Your task to perform on an android device: see sites visited before in the chrome app Image 0: 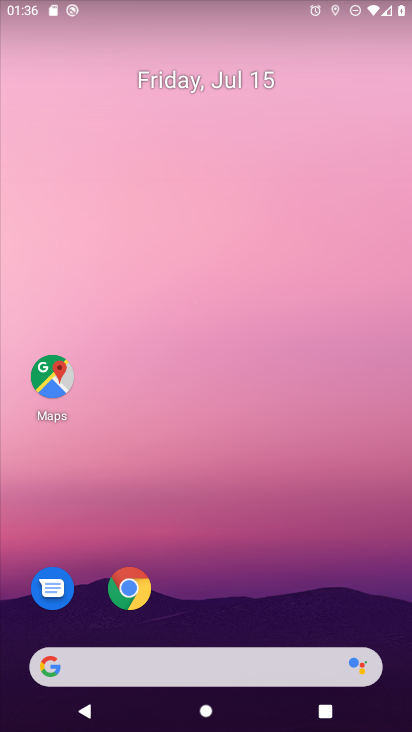
Step 0: click (124, 589)
Your task to perform on an android device: see sites visited before in the chrome app Image 1: 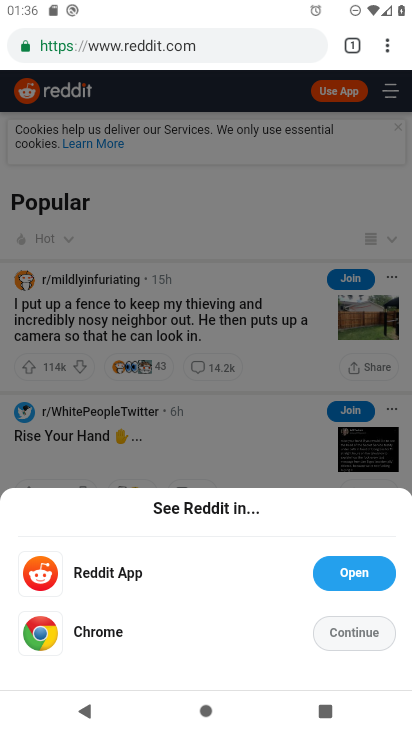
Step 1: click (384, 53)
Your task to perform on an android device: see sites visited before in the chrome app Image 2: 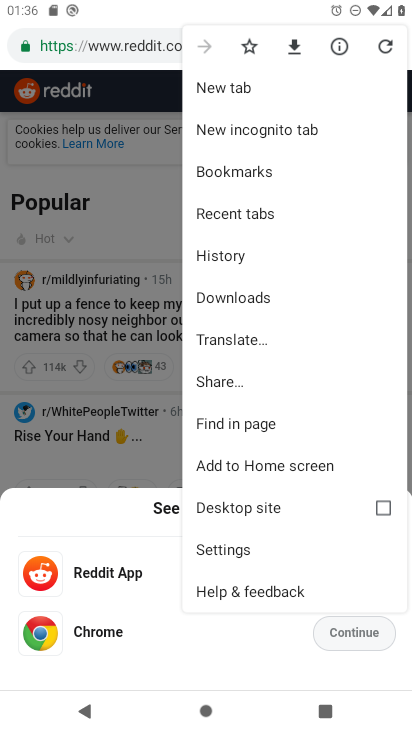
Step 2: click (214, 256)
Your task to perform on an android device: see sites visited before in the chrome app Image 3: 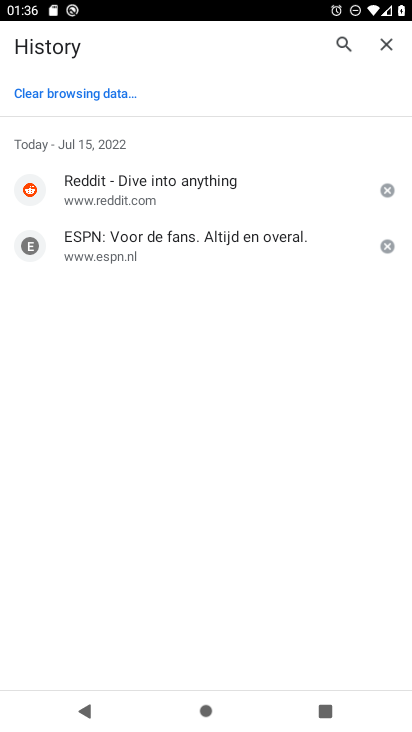
Step 3: task complete